Your task to perform on an android device: toggle priority inbox in the gmail app Image 0: 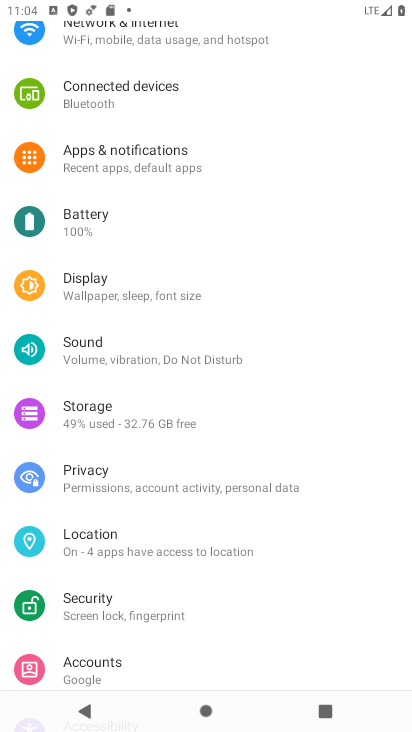
Step 0: press home button
Your task to perform on an android device: toggle priority inbox in the gmail app Image 1: 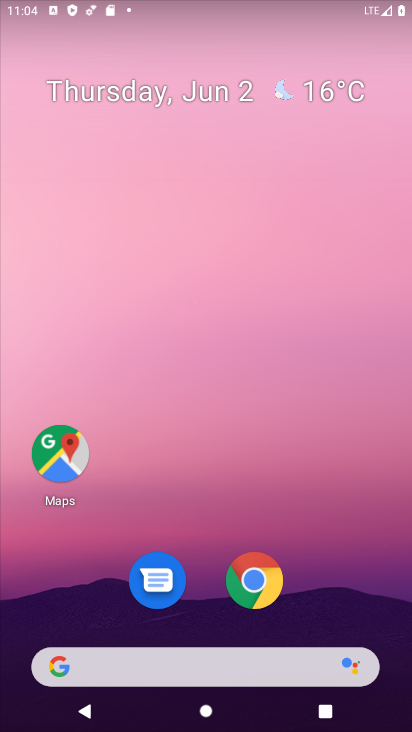
Step 1: drag from (257, 289) to (292, 53)
Your task to perform on an android device: toggle priority inbox in the gmail app Image 2: 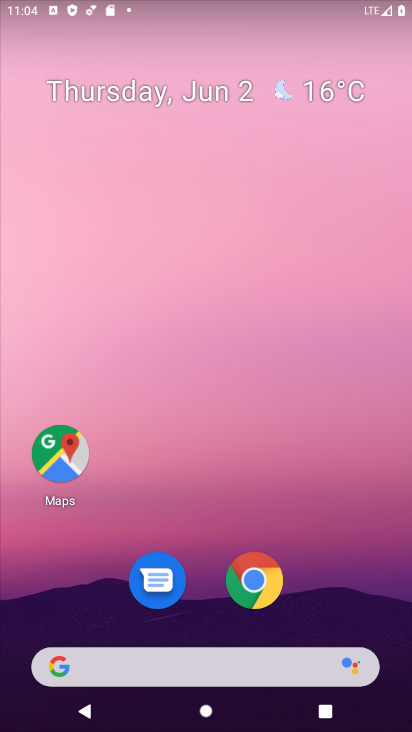
Step 2: drag from (247, 557) to (281, 9)
Your task to perform on an android device: toggle priority inbox in the gmail app Image 3: 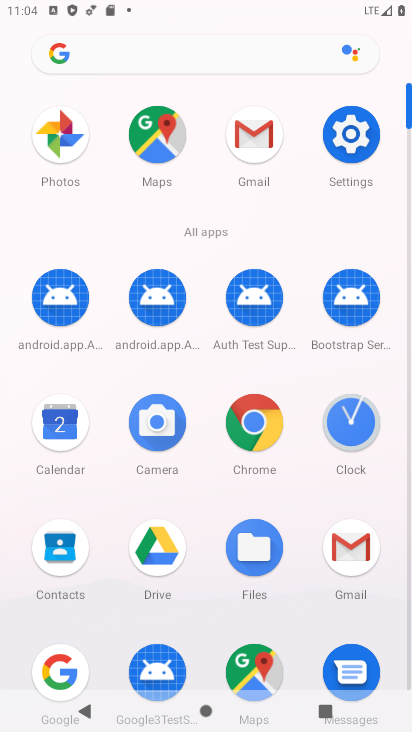
Step 3: click (255, 146)
Your task to perform on an android device: toggle priority inbox in the gmail app Image 4: 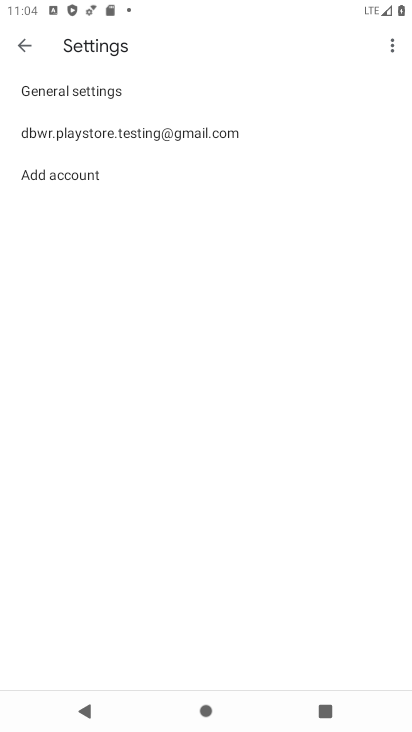
Step 4: click (92, 136)
Your task to perform on an android device: toggle priority inbox in the gmail app Image 5: 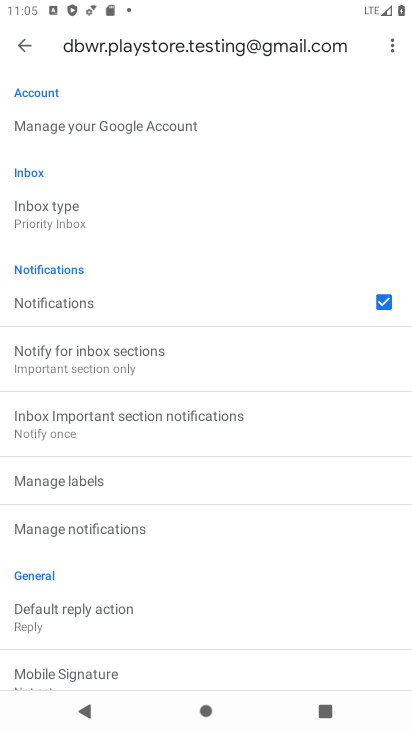
Step 5: drag from (175, 523) to (262, 196)
Your task to perform on an android device: toggle priority inbox in the gmail app Image 6: 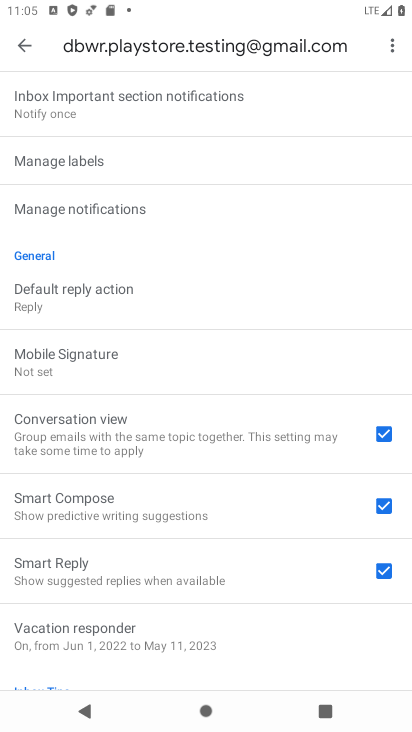
Step 6: drag from (138, 222) to (110, 585)
Your task to perform on an android device: toggle priority inbox in the gmail app Image 7: 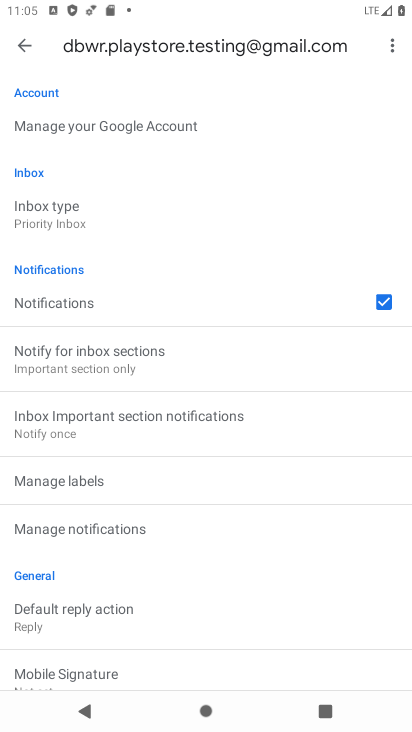
Step 7: click (95, 209)
Your task to perform on an android device: toggle priority inbox in the gmail app Image 8: 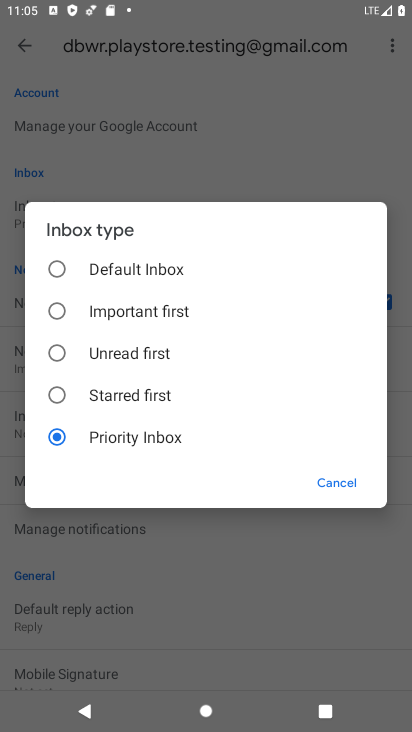
Step 8: click (101, 270)
Your task to perform on an android device: toggle priority inbox in the gmail app Image 9: 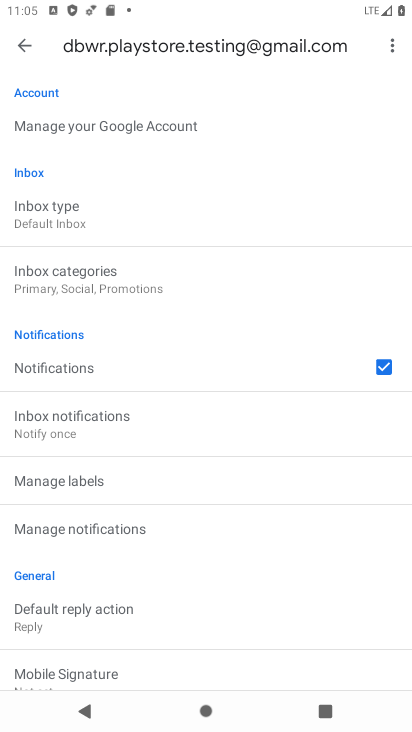
Step 9: task complete